Your task to perform on an android device: turn off sleep mode Image 0: 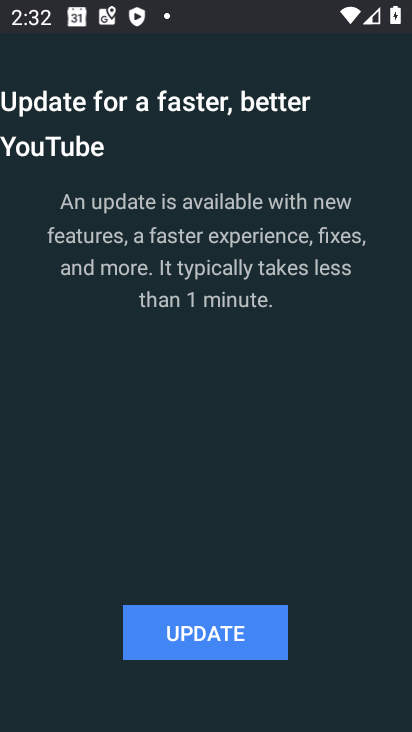
Step 0: press back button
Your task to perform on an android device: turn off sleep mode Image 1: 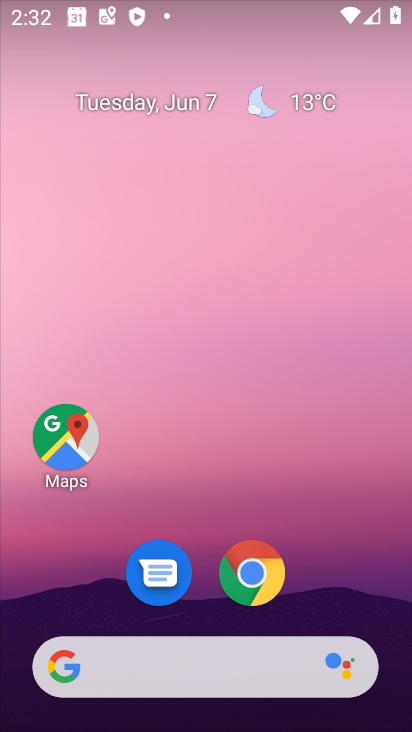
Step 1: drag from (321, 493) to (330, 41)
Your task to perform on an android device: turn off sleep mode Image 2: 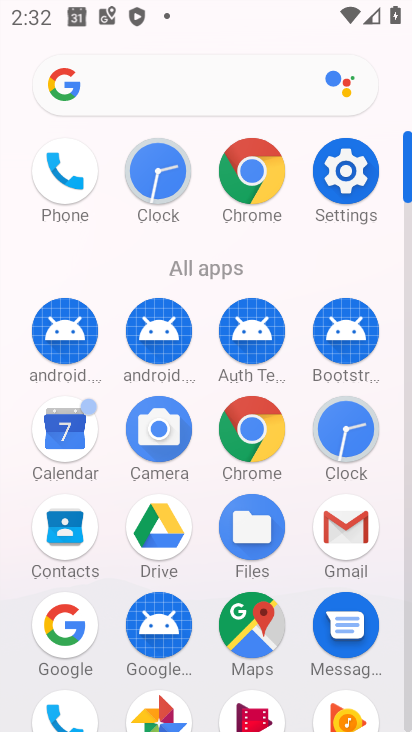
Step 2: click (346, 174)
Your task to perform on an android device: turn off sleep mode Image 3: 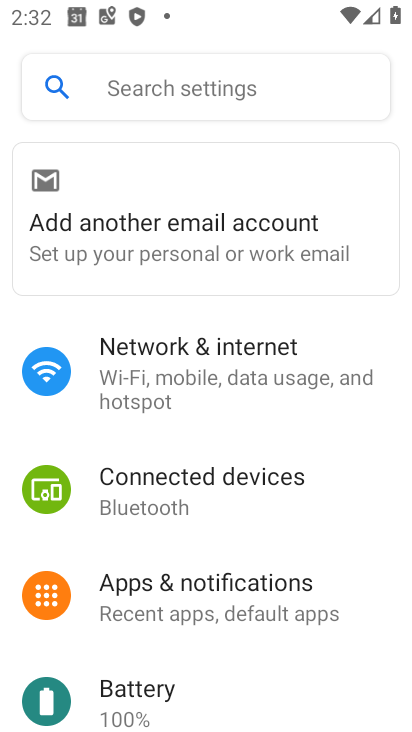
Step 3: task complete